Your task to perform on an android device: Open Google Chrome and click the shortcut for Amazon.com Image 0: 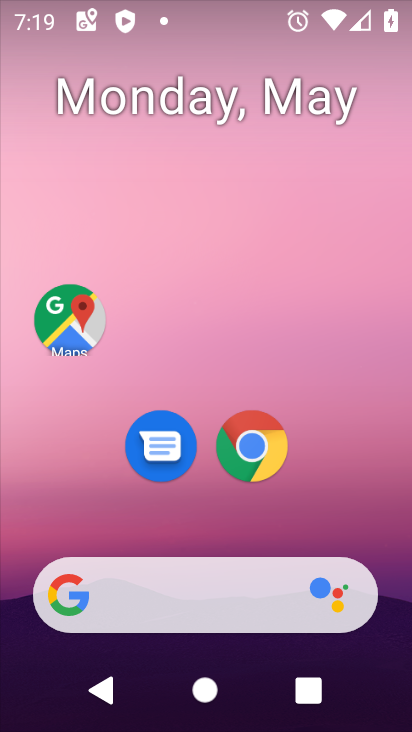
Step 0: click (255, 454)
Your task to perform on an android device: Open Google Chrome and click the shortcut for Amazon.com Image 1: 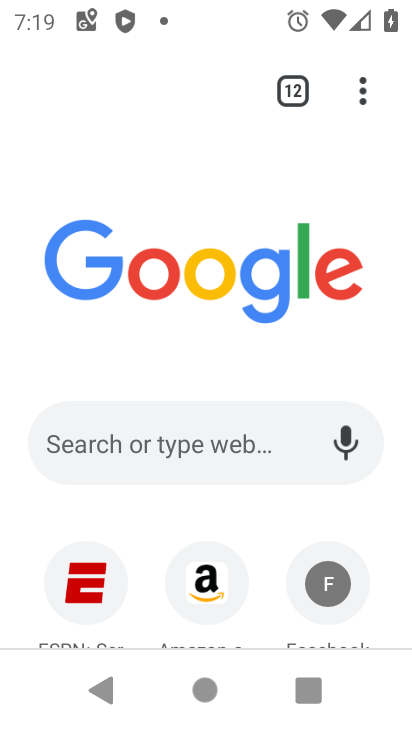
Step 1: click (214, 567)
Your task to perform on an android device: Open Google Chrome and click the shortcut for Amazon.com Image 2: 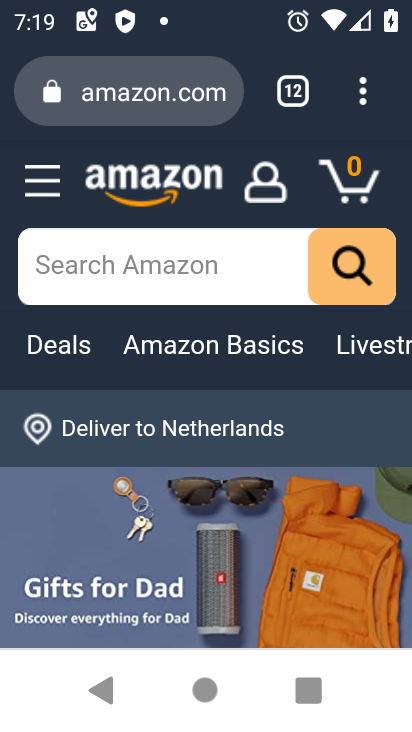
Step 2: task complete